Your task to perform on an android device: Open notification settings Image 0: 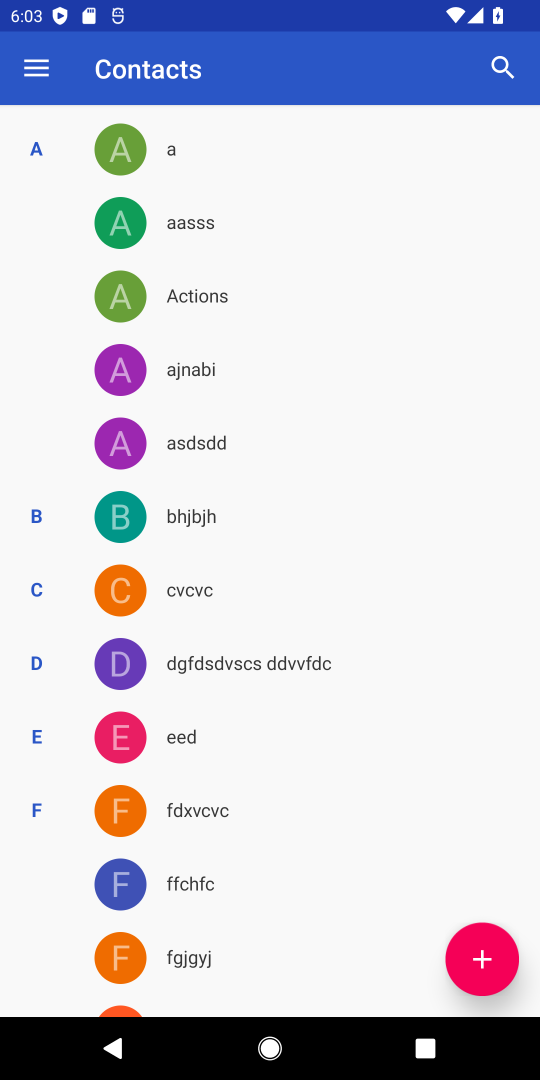
Step 0: press home button
Your task to perform on an android device: Open notification settings Image 1: 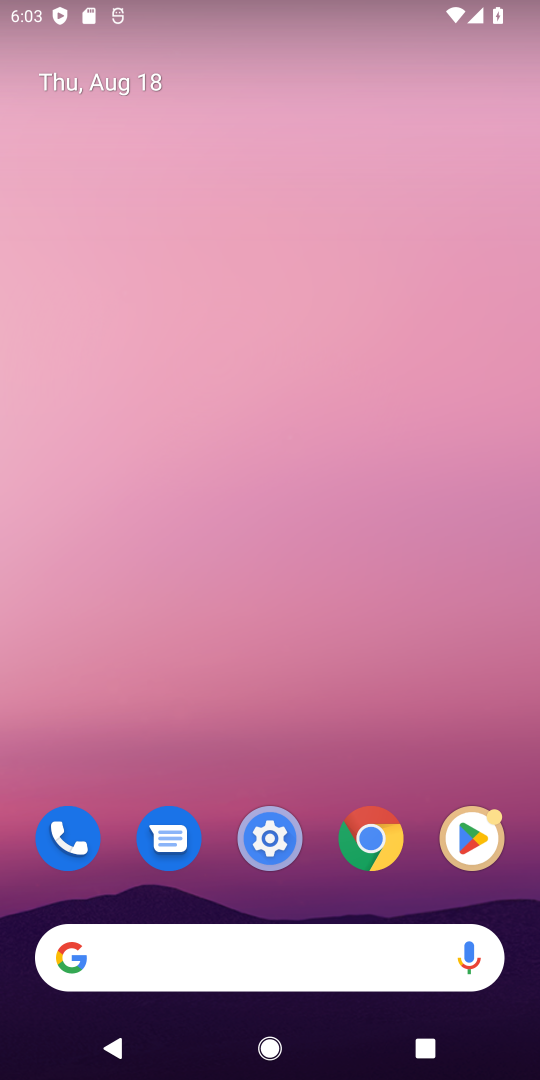
Step 1: click (267, 856)
Your task to perform on an android device: Open notification settings Image 2: 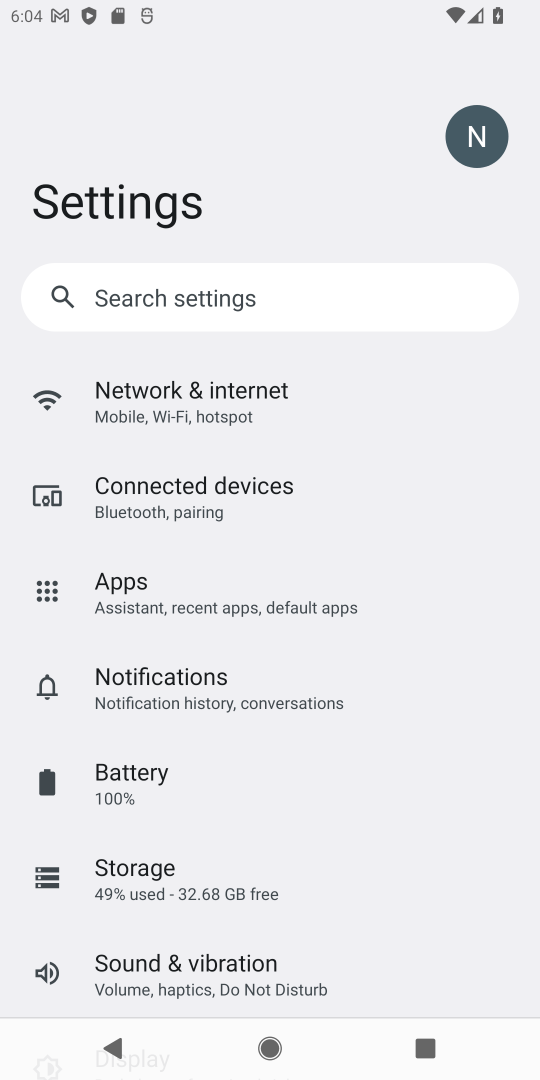
Step 2: click (150, 684)
Your task to perform on an android device: Open notification settings Image 3: 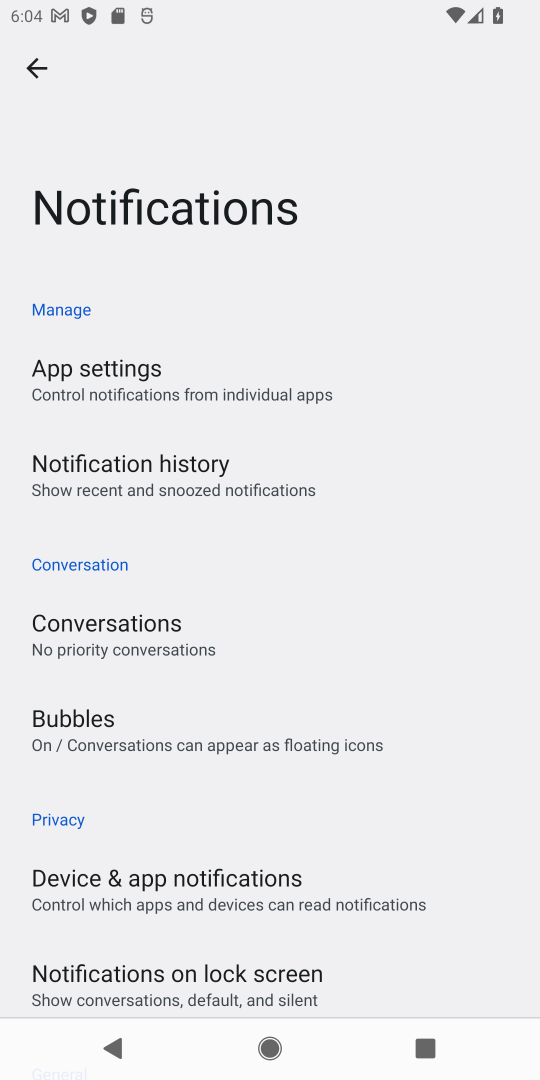
Step 3: task complete